Your task to perform on an android device: toggle notification dots Image 0: 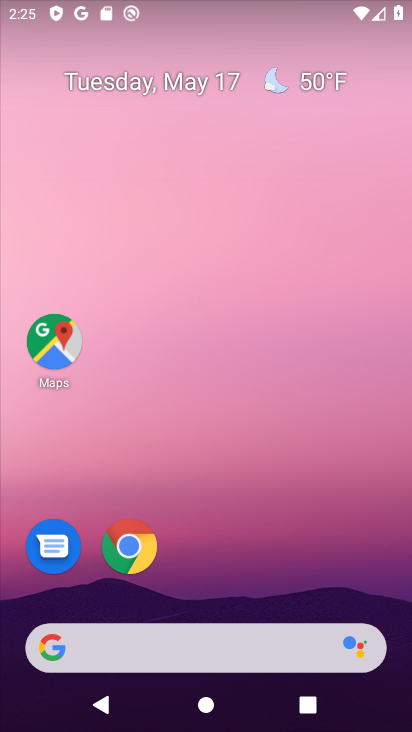
Step 0: drag from (228, 593) to (242, 361)
Your task to perform on an android device: toggle notification dots Image 1: 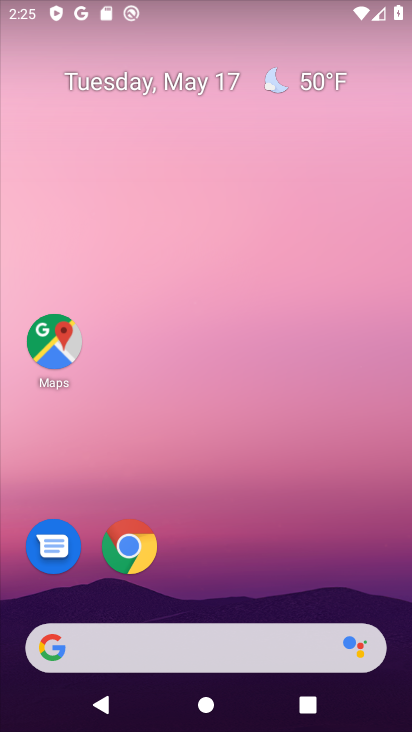
Step 1: drag from (217, 604) to (207, 0)
Your task to perform on an android device: toggle notification dots Image 2: 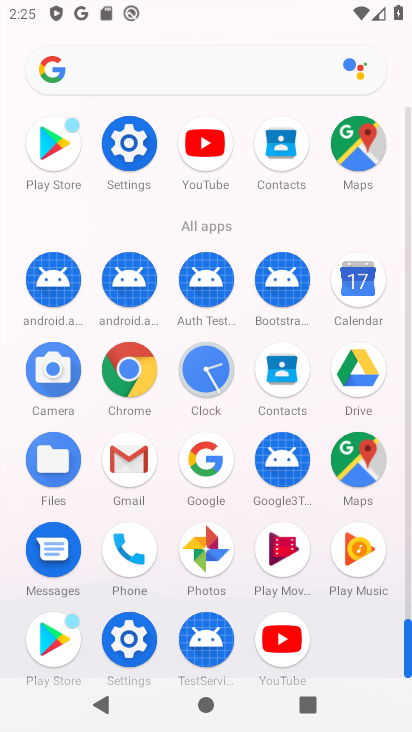
Step 2: click (132, 642)
Your task to perform on an android device: toggle notification dots Image 3: 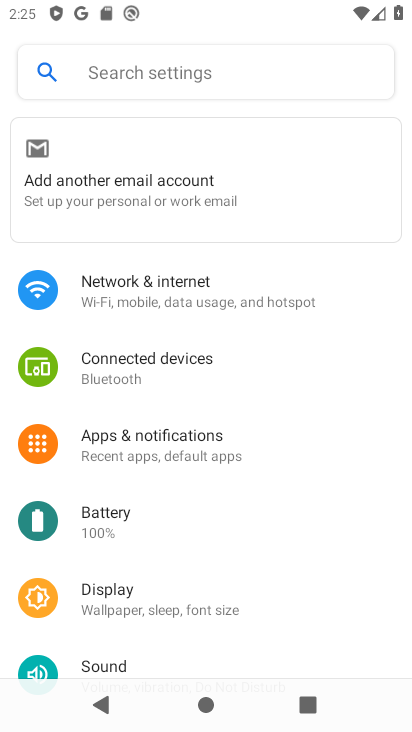
Step 3: click (166, 452)
Your task to perform on an android device: toggle notification dots Image 4: 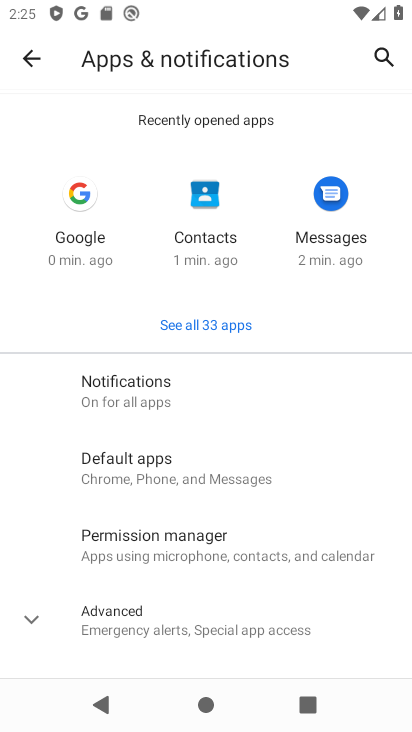
Step 4: click (162, 401)
Your task to perform on an android device: toggle notification dots Image 5: 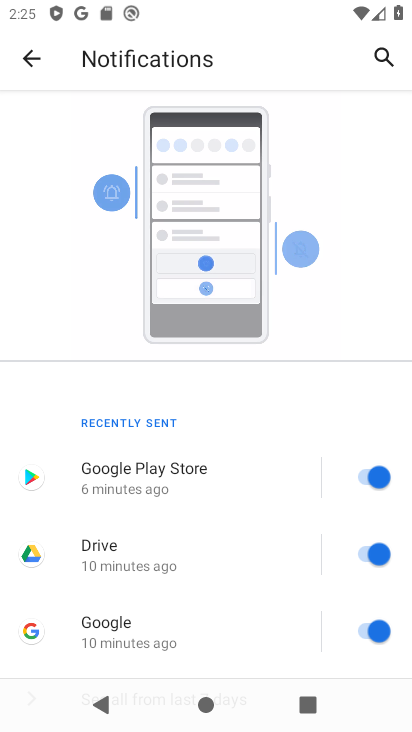
Step 5: drag from (185, 558) to (224, 154)
Your task to perform on an android device: toggle notification dots Image 6: 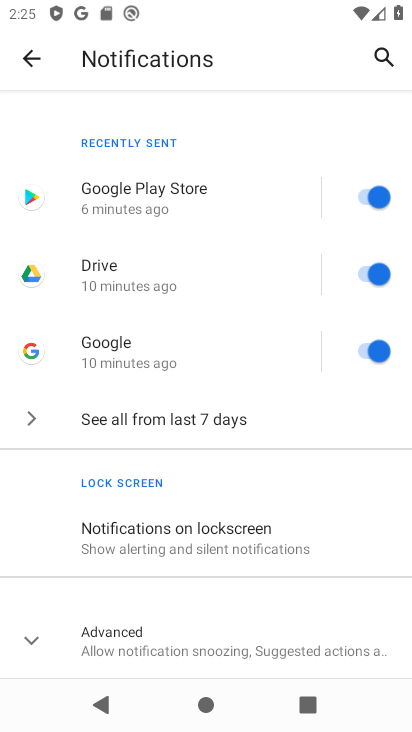
Step 6: click (164, 639)
Your task to perform on an android device: toggle notification dots Image 7: 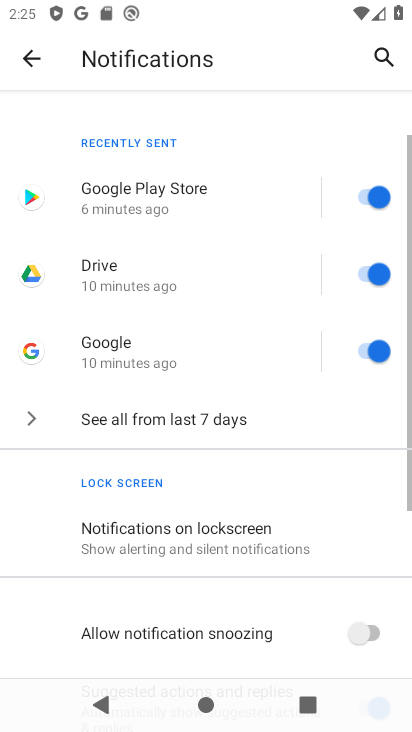
Step 7: drag from (186, 622) to (264, 82)
Your task to perform on an android device: toggle notification dots Image 8: 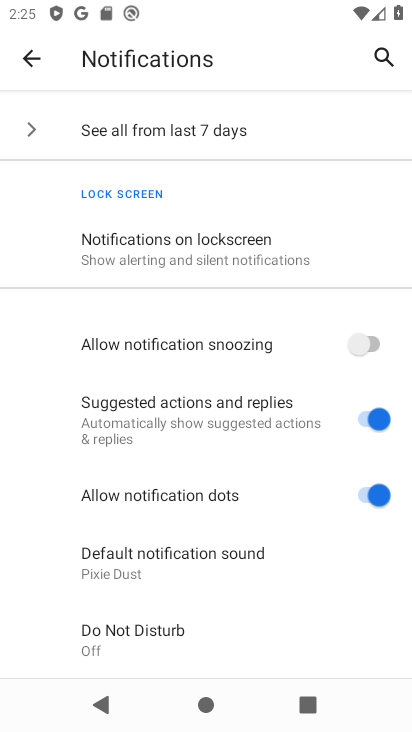
Step 8: click (372, 494)
Your task to perform on an android device: toggle notification dots Image 9: 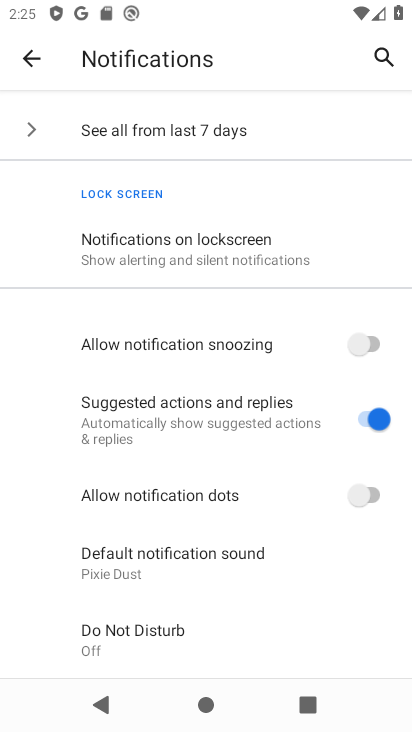
Step 9: task complete